Your task to perform on an android device: choose inbox layout in the gmail app Image 0: 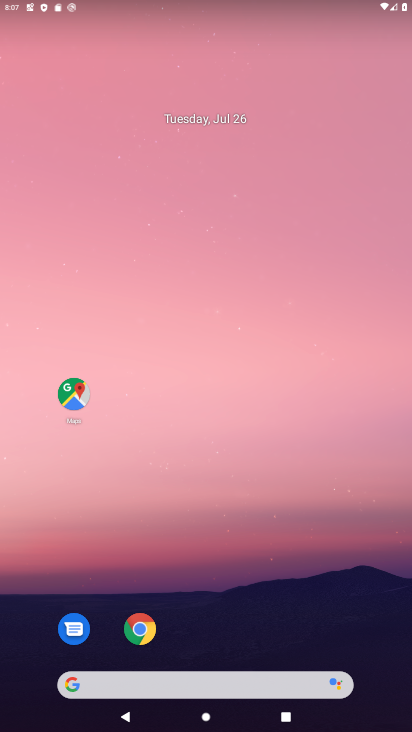
Step 0: drag from (214, 642) to (249, 12)
Your task to perform on an android device: choose inbox layout in the gmail app Image 1: 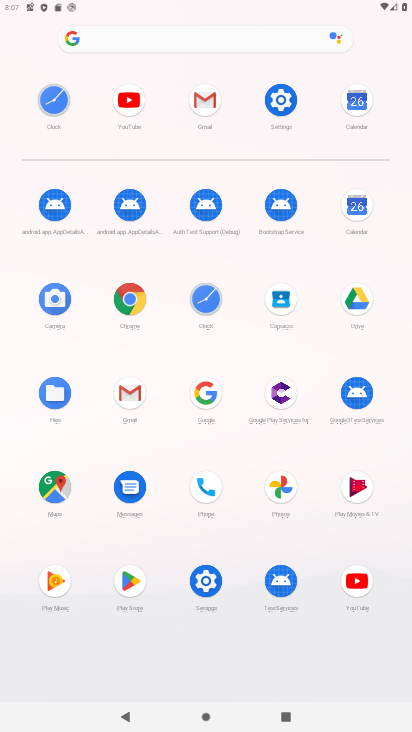
Step 1: click (132, 388)
Your task to perform on an android device: choose inbox layout in the gmail app Image 2: 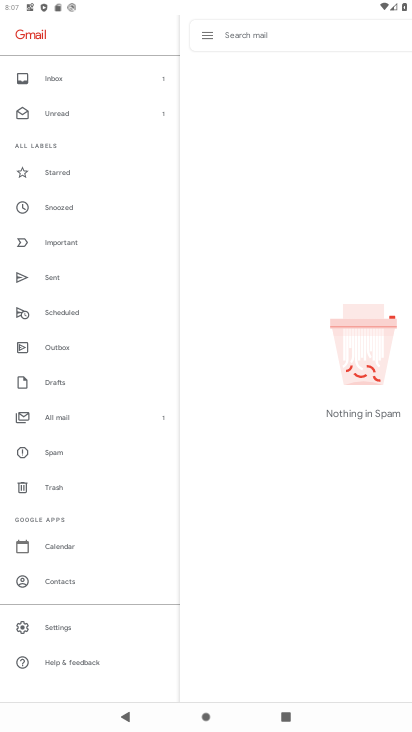
Step 2: click (64, 622)
Your task to perform on an android device: choose inbox layout in the gmail app Image 3: 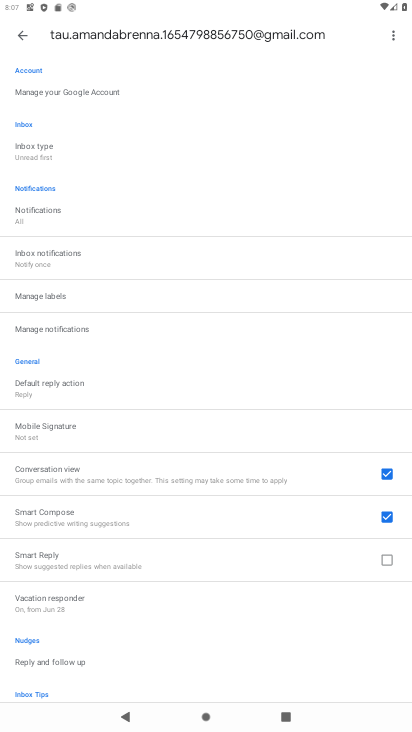
Step 3: click (66, 146)
Your task to perform on an android device: choose inbox layout in the gmail app Image 4: 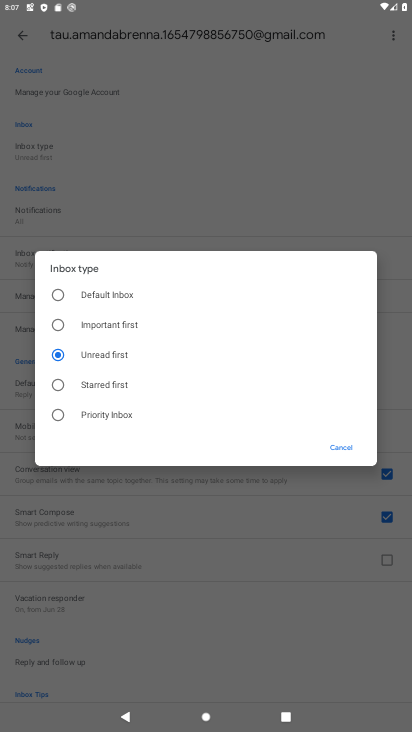
Step 4: click (57, 295)
Your task to perform on an android device: choose inbox layout in the gmail app Image 5: 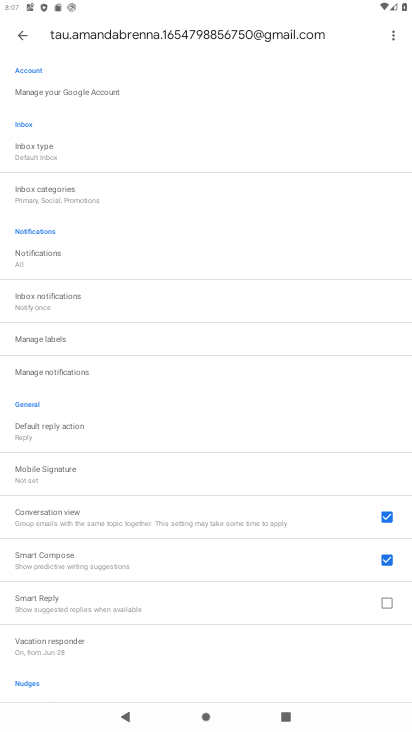
Step 5: task complete